Your task to perform on an android device: Search for "sony triple a" on costco.com, select the first entry, and add it to the cart. Image 0: 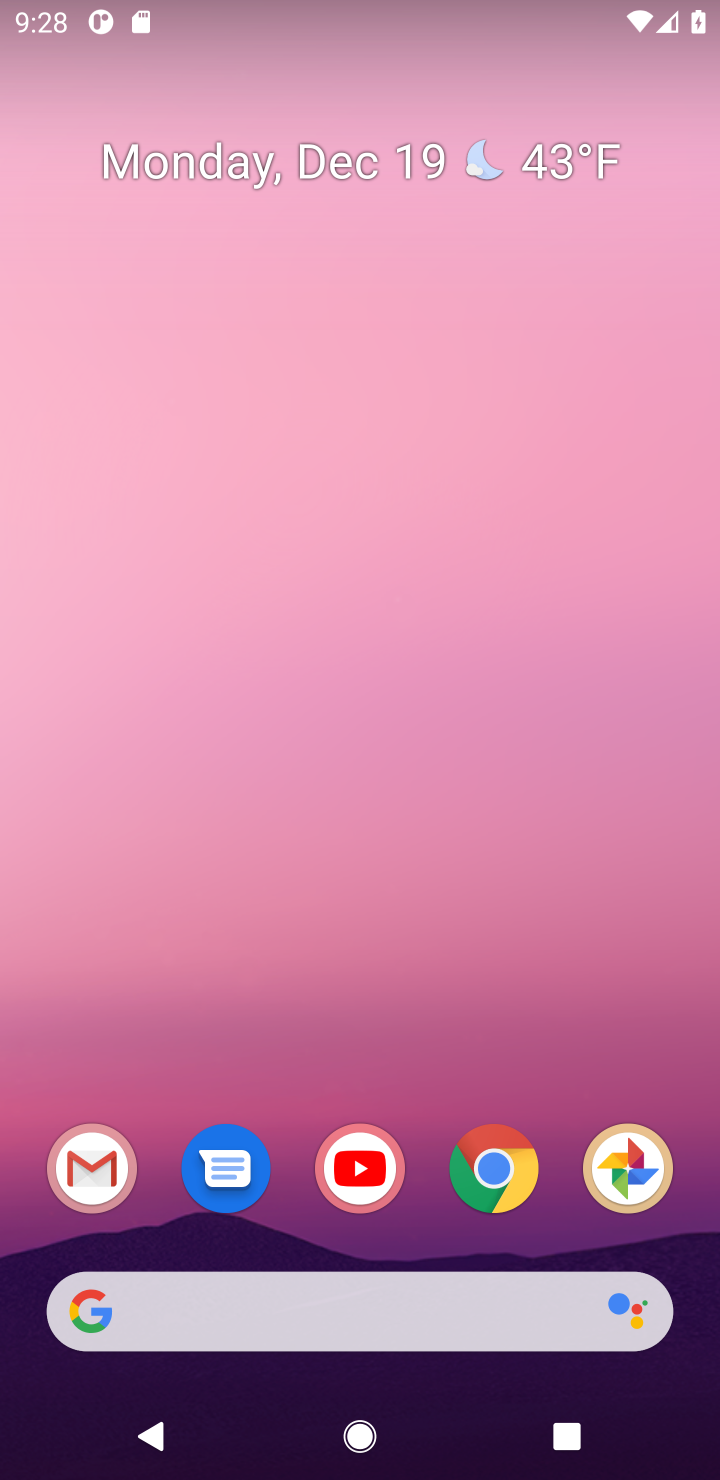
Step 0: click (504, 1168)
Your task to perform on an android device: Search for "sony triple a" on costco.com, select the first entry, and add it to the cart. Image 1: 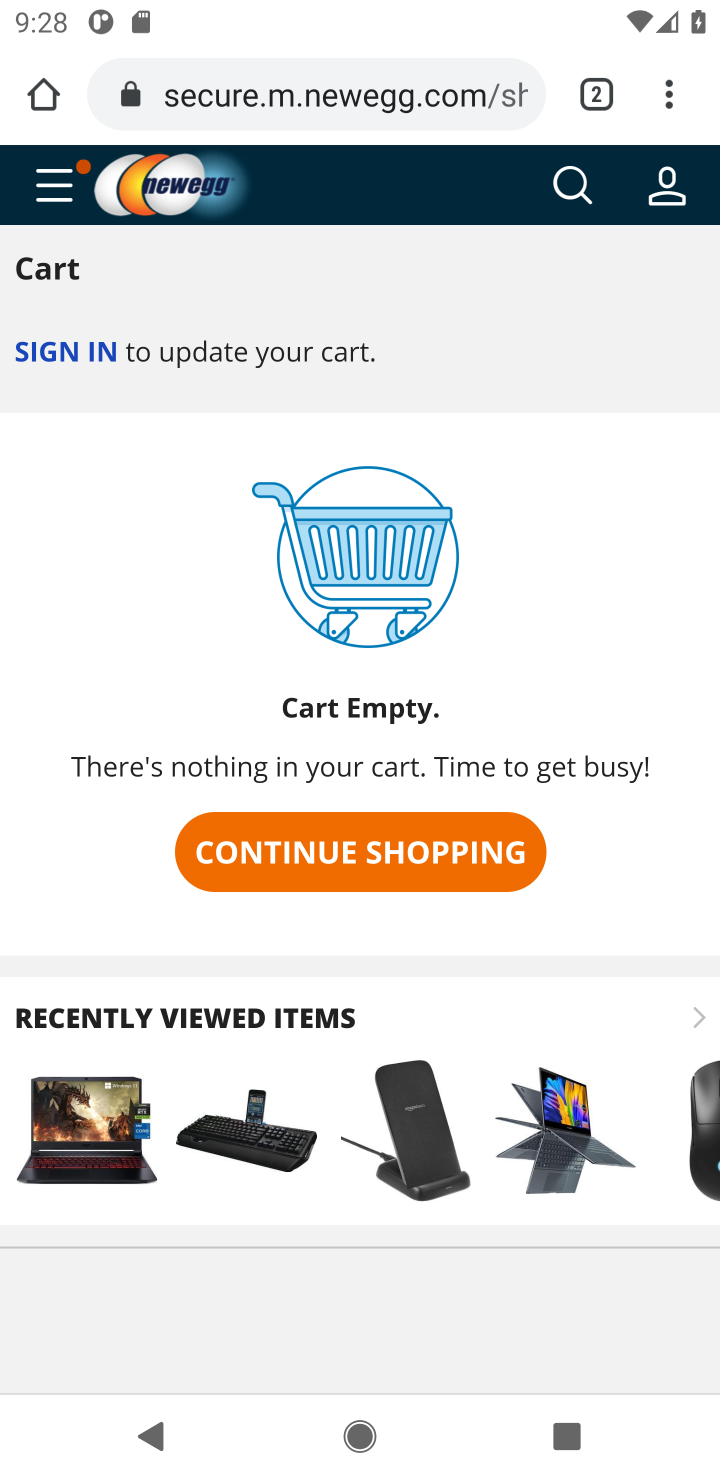
Step 1: click (236, 87)
Your task to perform on an android device: Search for "sony triple a" on costco.com, select the first entry, and add it to the cart. Image 2: 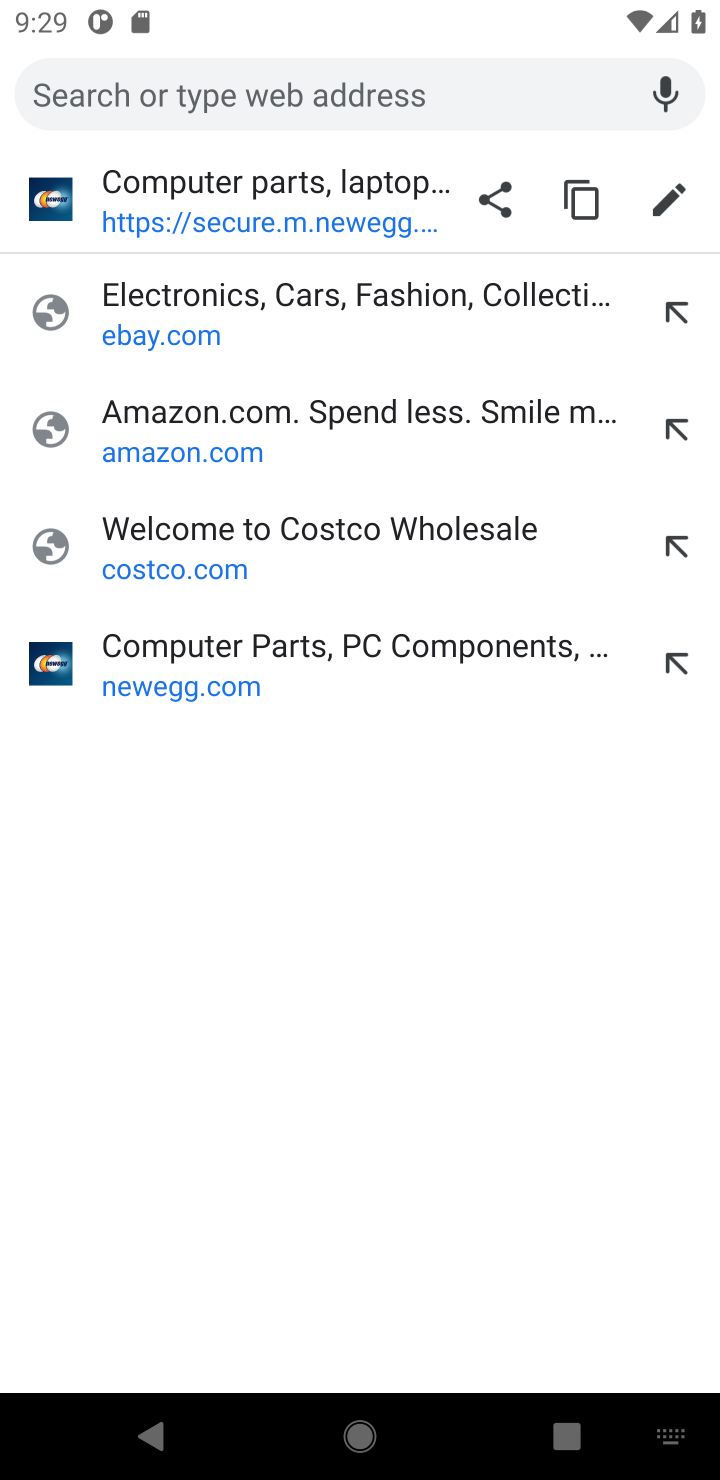
Step 2: click (131, 525)
Your task to perform on an android device: Search for "sony triple a" on costco.com, select the first entry, and add it to the cart. Image 3: 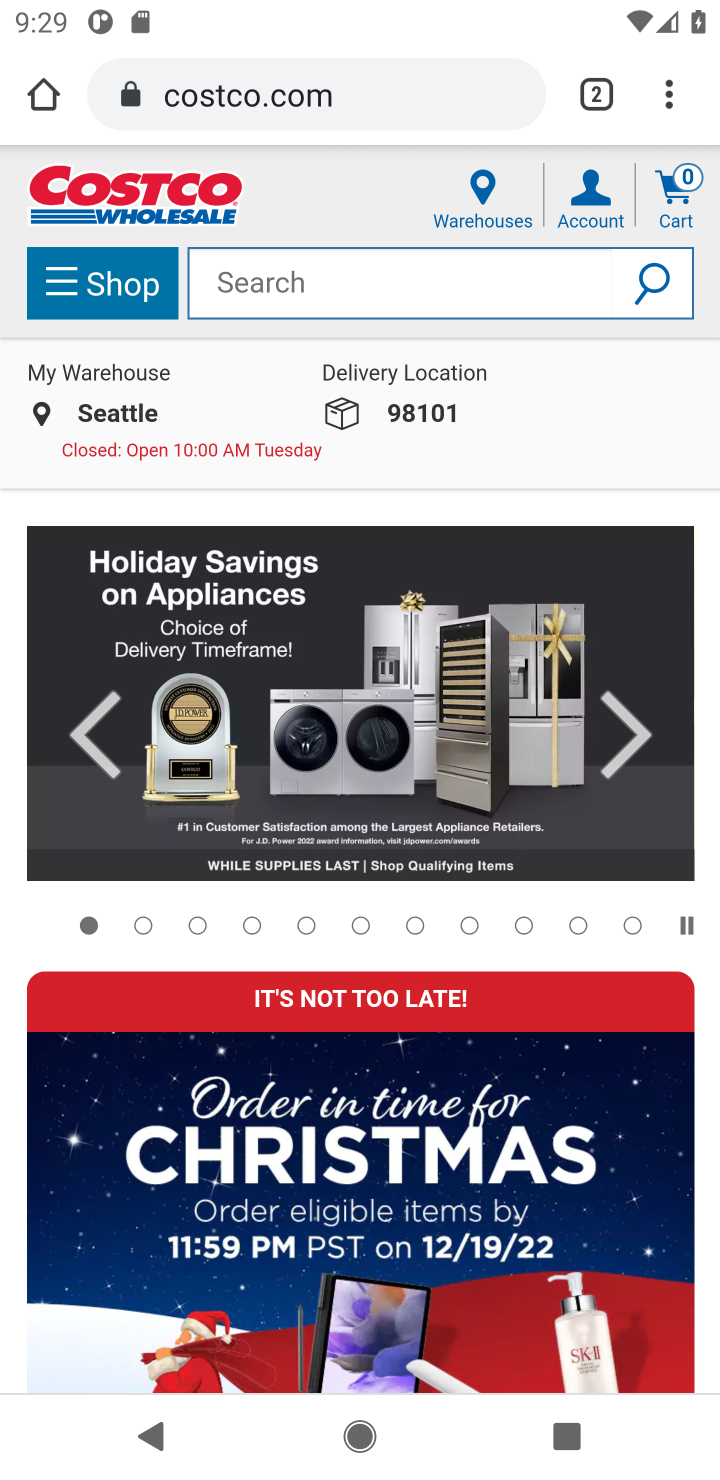
Step 3: click (321, 287)
Your task to perform on an android device: Search for "sony triple a" on costco.com, select the first entry, and add it to the cart. Image 4: 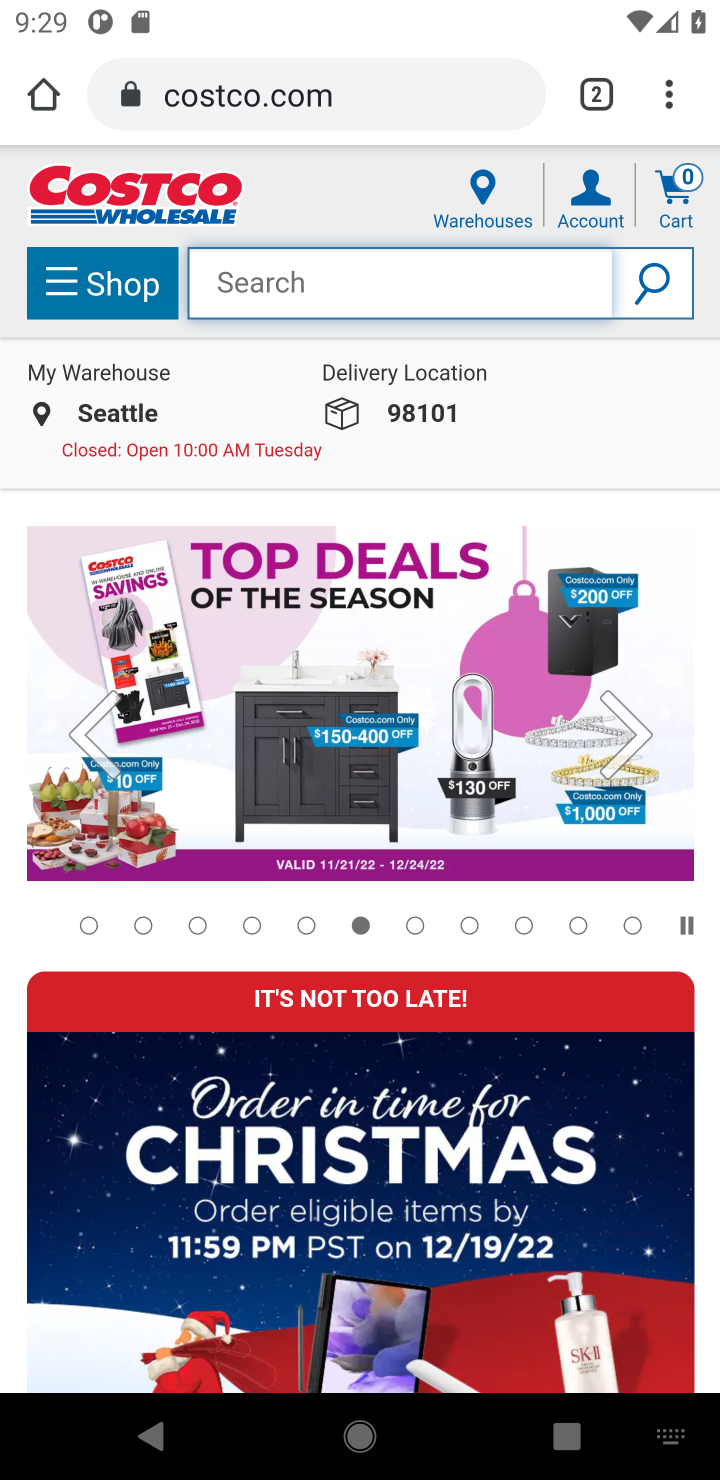
Step 4: click (295, 304)
Your task to perform on an android device: Search for "sony triple a" on costco.com, select the first entry, and add it to the cart. Image 5: 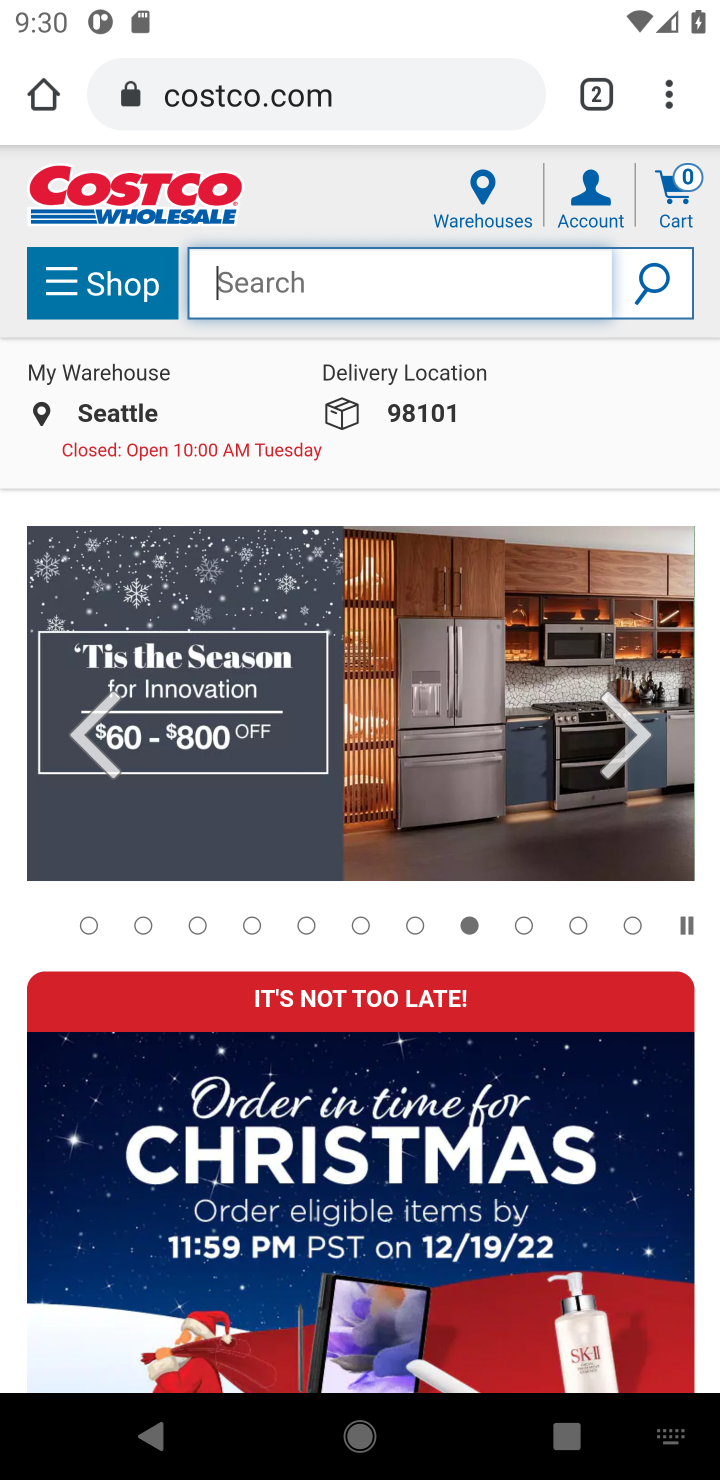
Step 5: type "sony triple a"
Your task to perform on an android device: Search for "sony triple a" on costco.com, select the first entry, and add it to the cart. Image 6: 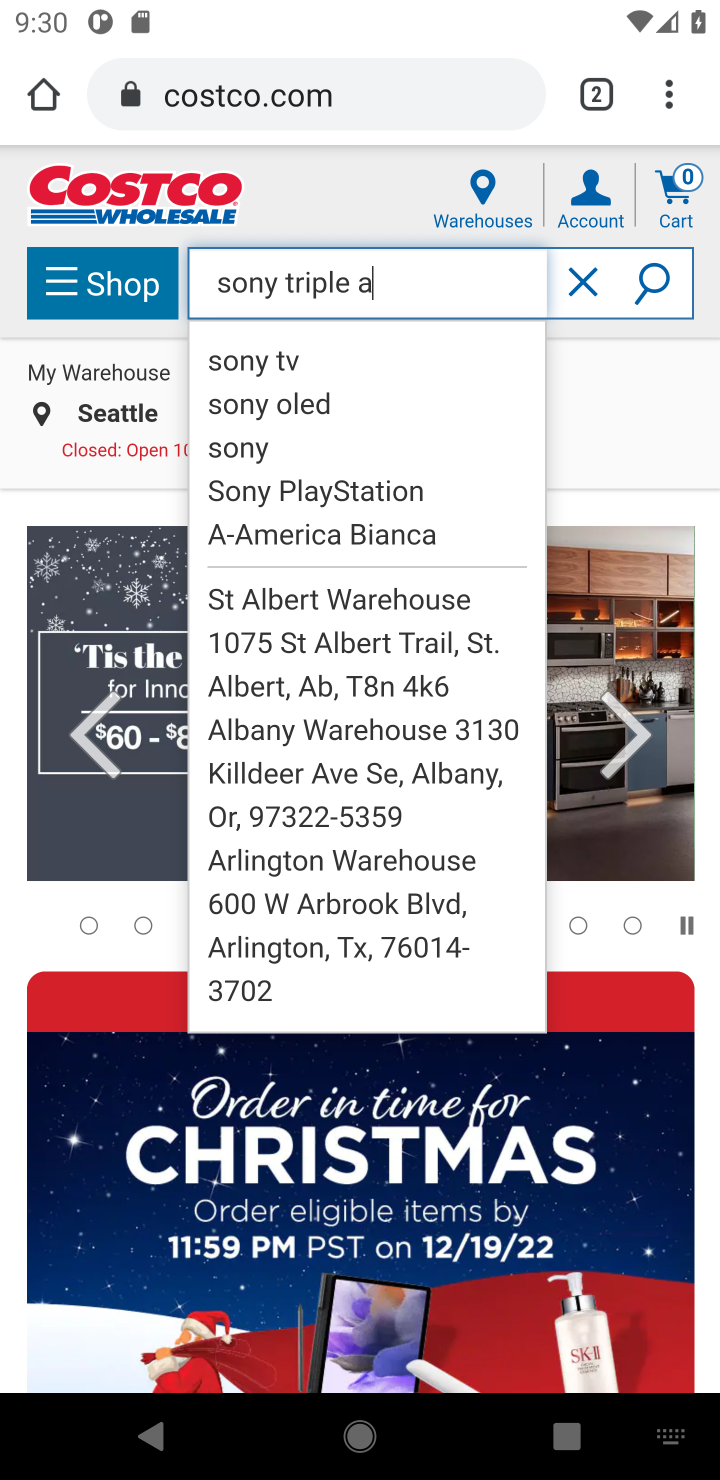
Step 6: click (655, 273)
Your task to perform on an android device: Search for "sony triple a" on costco.com, select the first entry, and add it to the cart. Image 7: 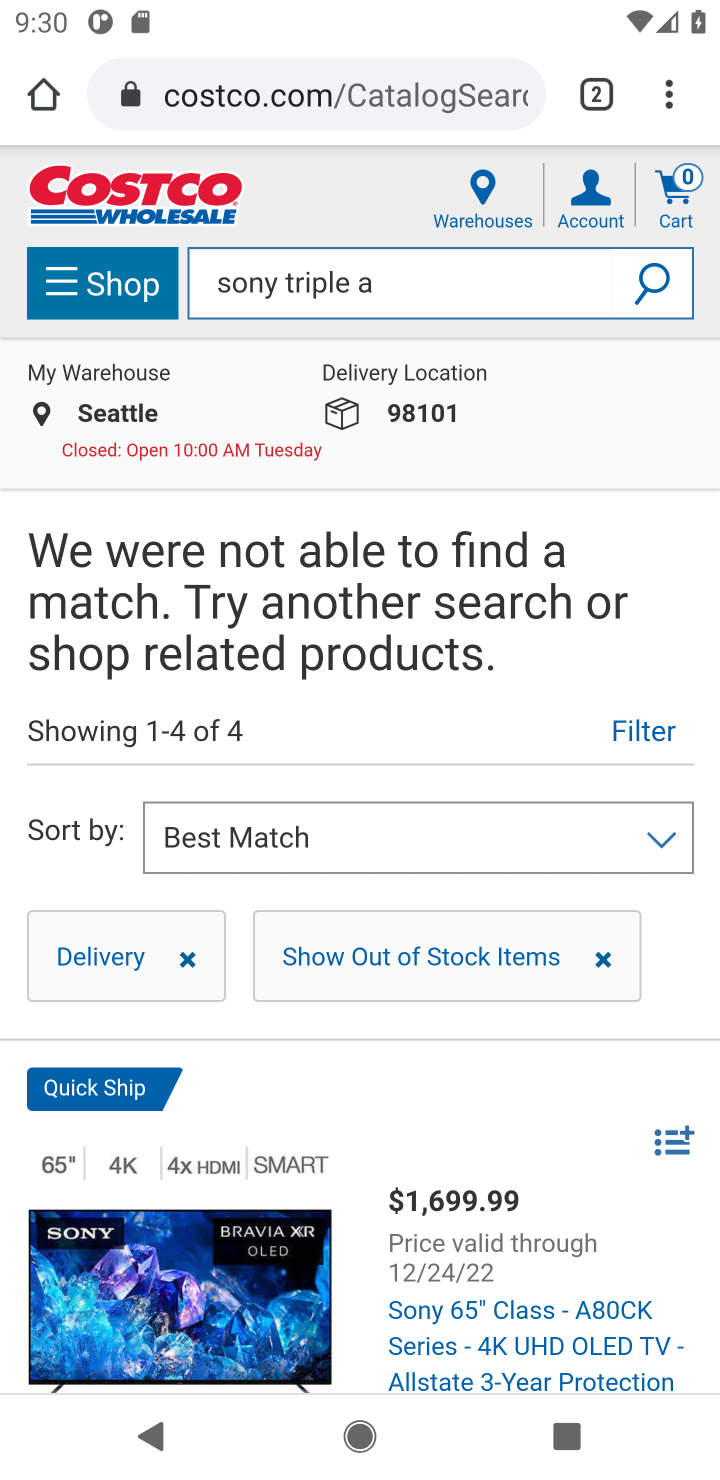
Step 7: task complete